Your task to perform on an android device: Open settings Image 0: 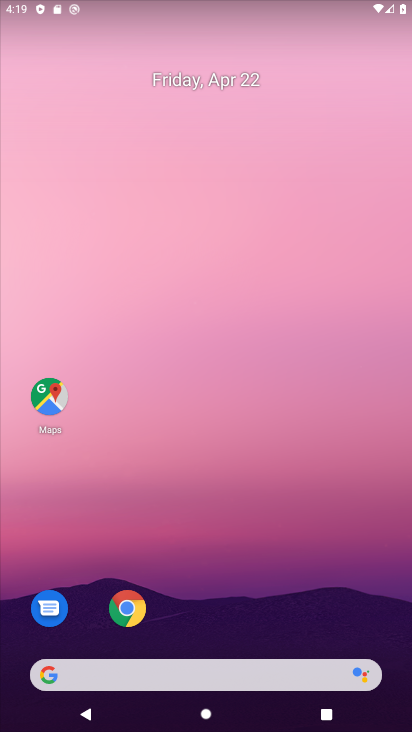
Step 0: drag from (237, 594) to (258, 208)
Your task to perform on an android device: Open settings Image 1: 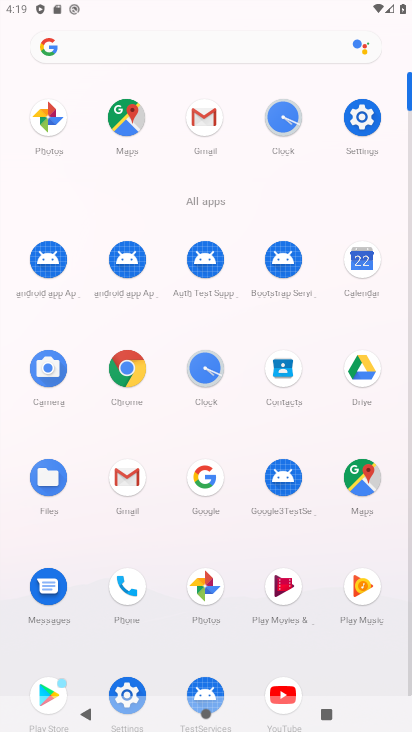
Step 1: click (372, 139)
Your task to perform on an android device: Open settings Image 2: 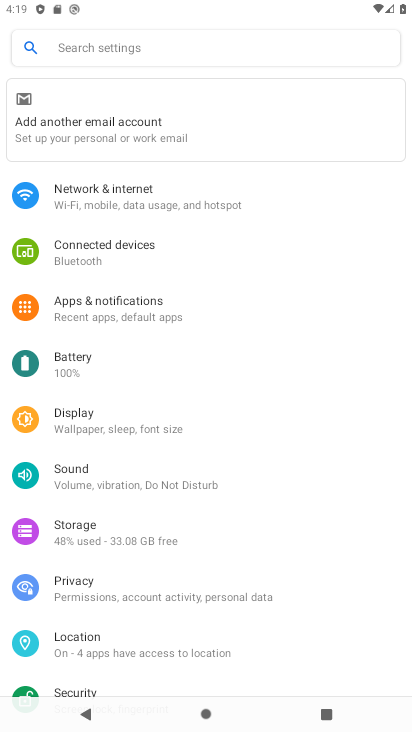
Step 2: task complete